Your task to perform on an android device: turn on the 12-hour format for clock Image 0: 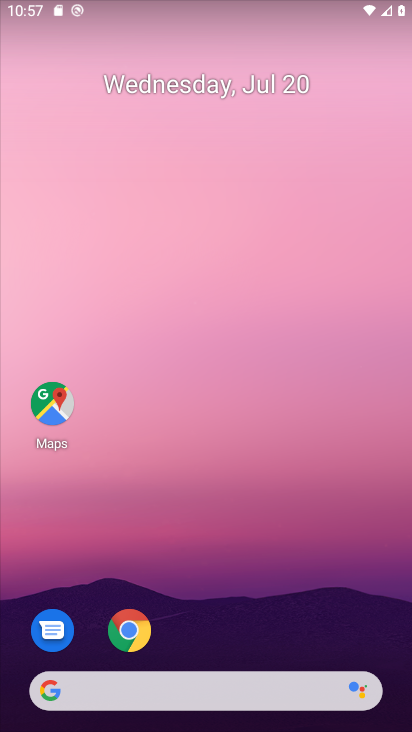
Step 0: click (207, 225)
Your task to perform on an android device: turn on the 12-hour format for clock Image 1: 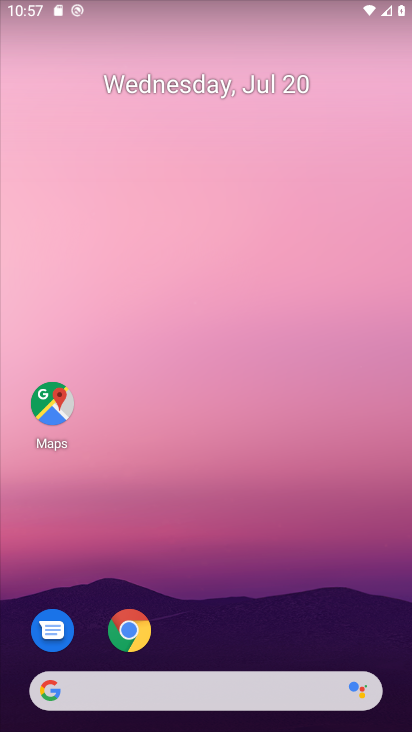
Step 1: drag from (192, 182) to (151, 7)
Your task to perform on an android device: turn on the 12-hour format for clock Image 2: 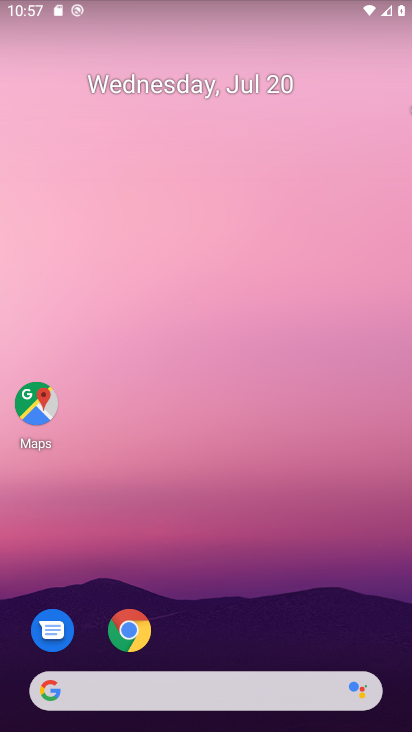
Step 2: click (151, 24)
Your task to perform on an android device: turn on the 12-hour format for clock Image 3: 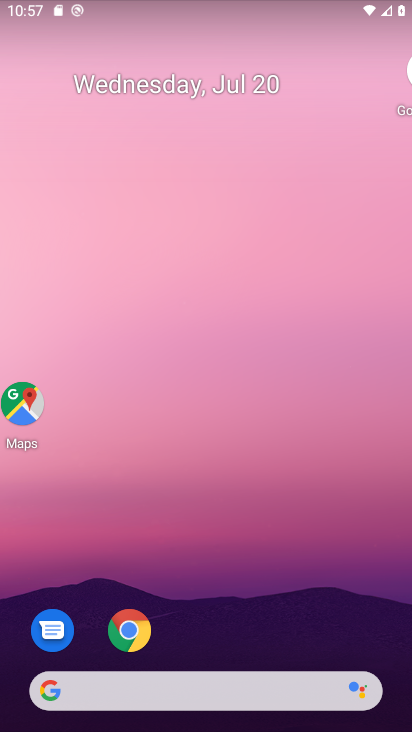
Step 3: drag from (151, 408) to (167, 43)
Your task to perform on an android device: turn on the 12-hour format for clock Image 4: 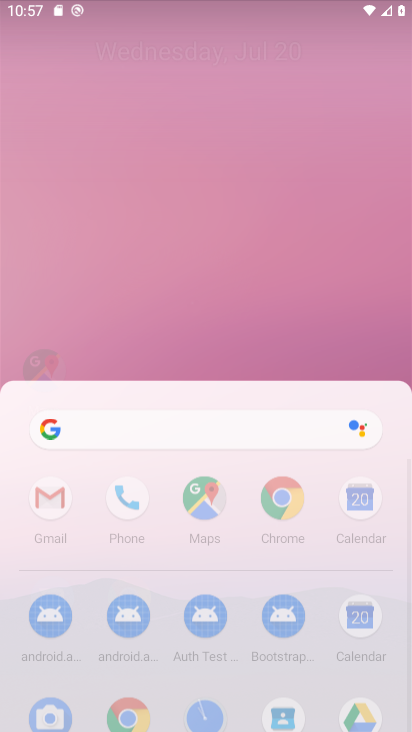
Step 4: drag from (229, 485) to (227, 64)
Your task to perform on an android device: turn on the 12-hour format for clock Image 5: 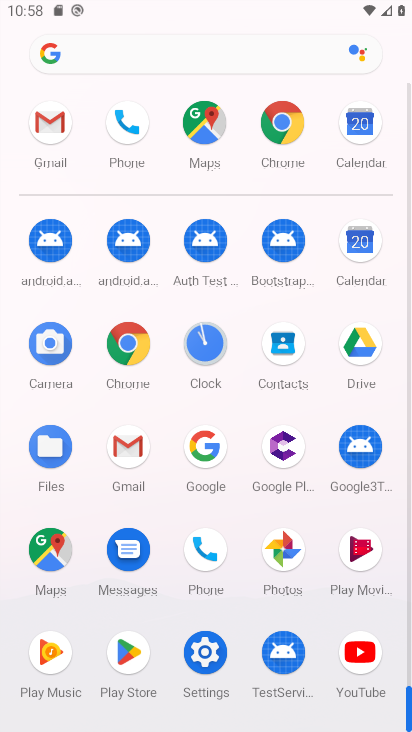
Step 5: click (204, 343)
Your task to perform on an android device: turn on the 12-hour format for clock Image 6: 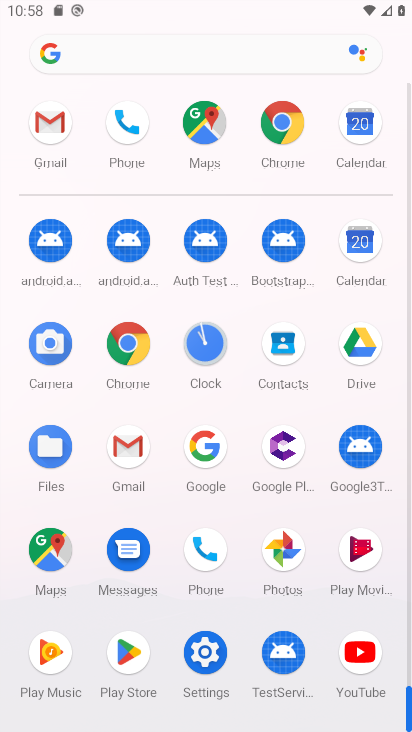
Step 6: click (204, 344)
Your task to perform on an android device: turn on the 12-hour format for clock Image 7: 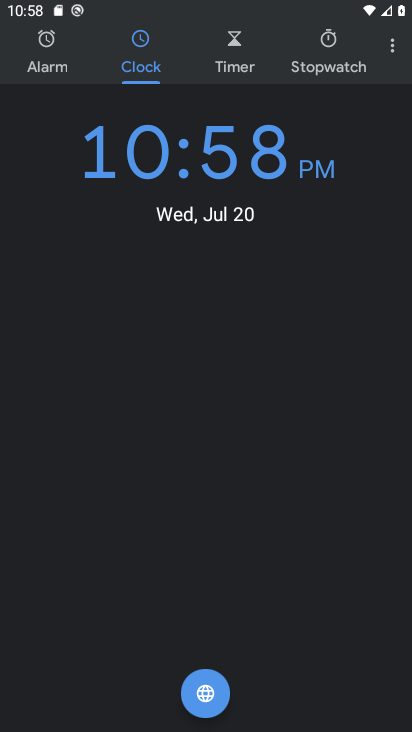
Step 7: click (386, 56)
Your task to perform on an android device: turn on the 12-hour format for clock Image 8: 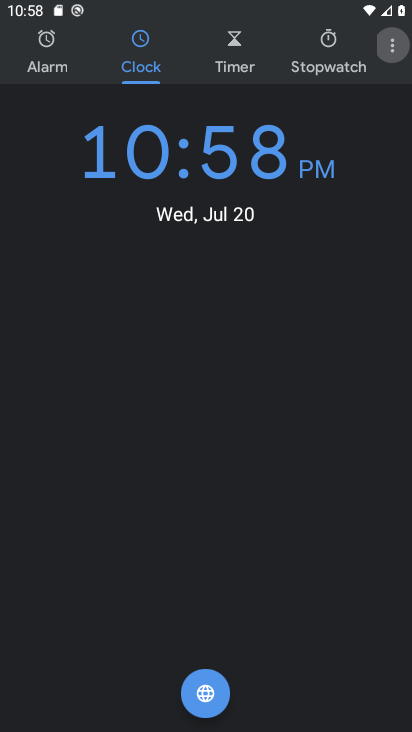
Step 8: click (387, 56)
Your task to perform on an android device: turn on the 12-hour format for clock Image 9: 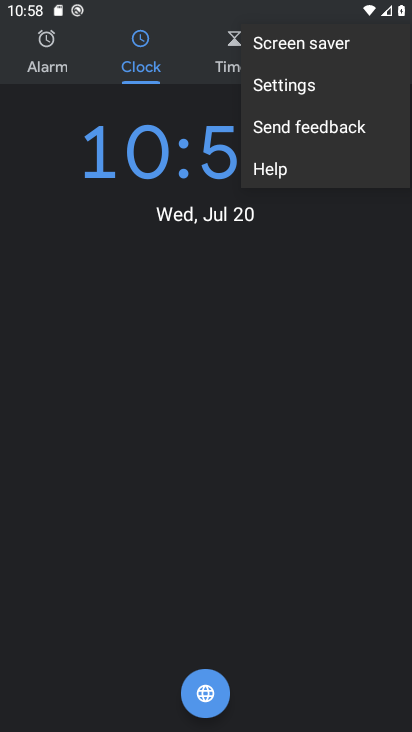
Step 9: click (387, 56)
Your task to perform on an android device: turn on the 12-hour format for clock Image 10: 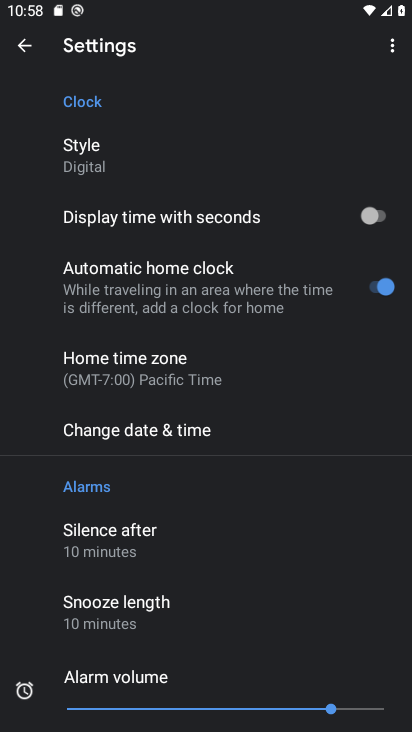
Step 10: click (139, 435)
Your task to perform on an android device: turn on the 12-hour format for clock Image 11: 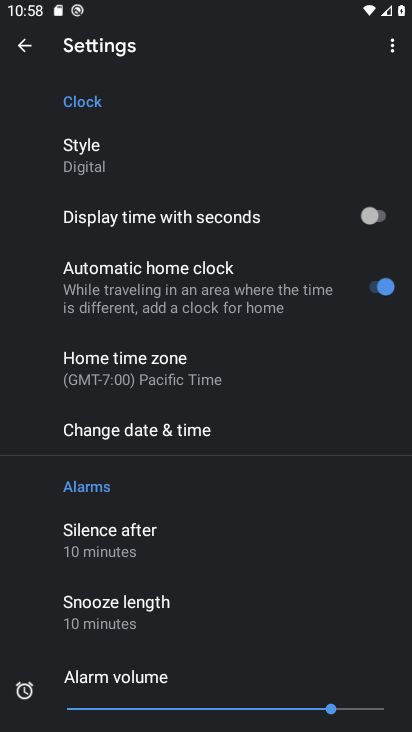
Step 11: click (135, 435)
Your task to perform on an android device: turn on the 12-hour format for clock Image 12: 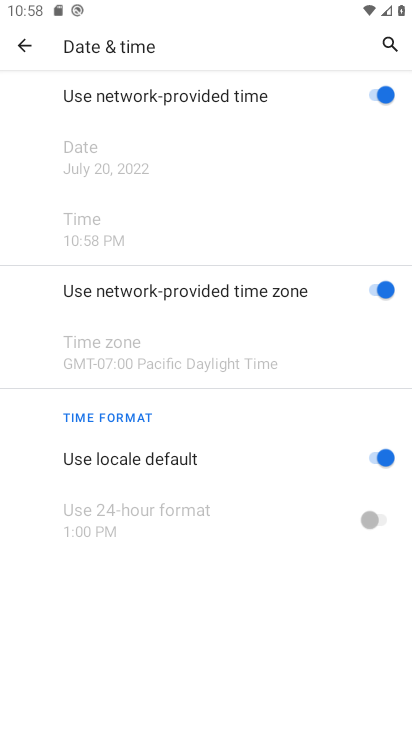
Step 12: task complete